Your task to perform on an android device: Open the map Image 0: 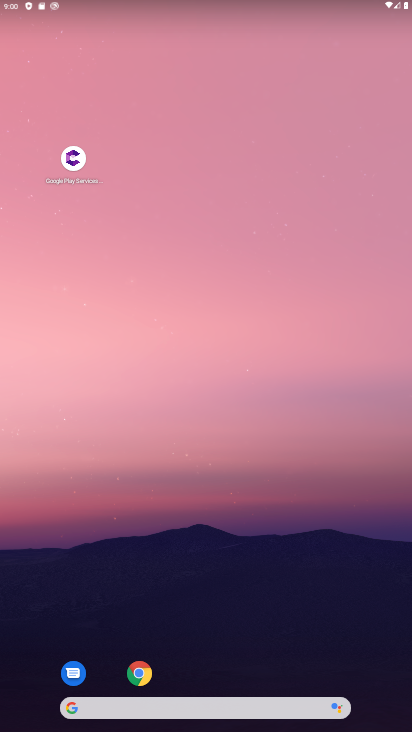
Step 0: drag from (207, 626) to (173, 57)
Your task to perform on an android device: Open the map Image 1: 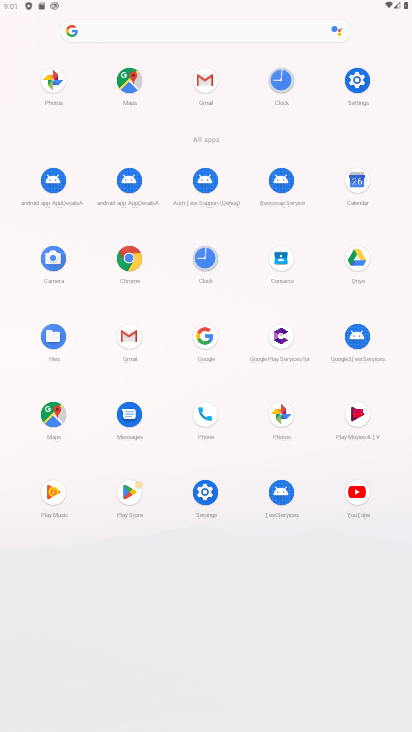
Step 1: click (130, 80)
Your task to perform on an android device: Open the map Image 2: 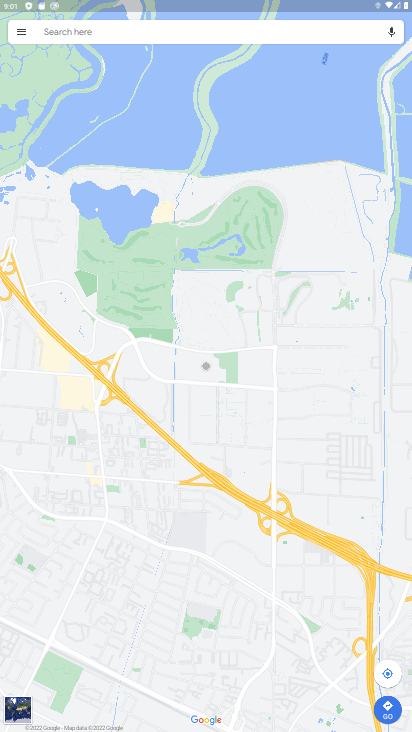
Step 2: task complete